Your task to perform on an android device: open a new tab in the chrome app Image 0: 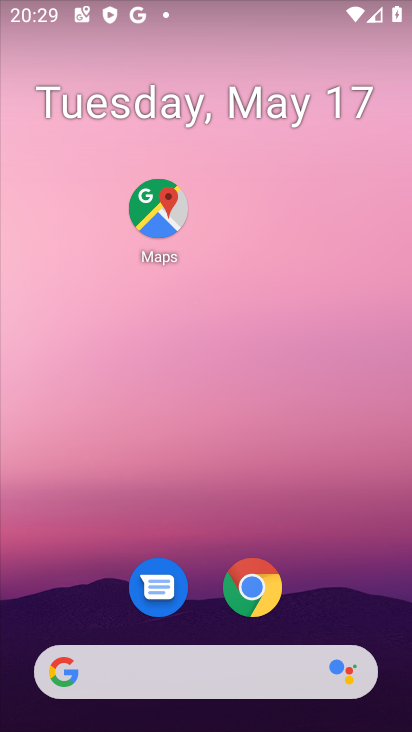
Step 0: click (253, 596)
Your task to perform on an android device: open a new tab in the chrome app Image 1: 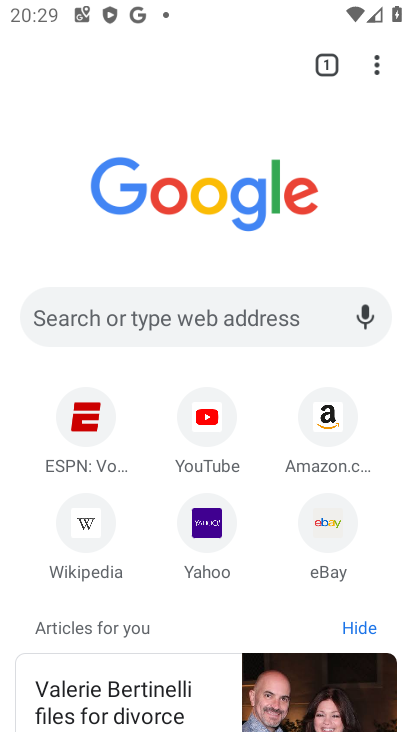
Step 1: click (333, 69)
Your task to perform on an android device: open a new tab in the chrome app Image 2: 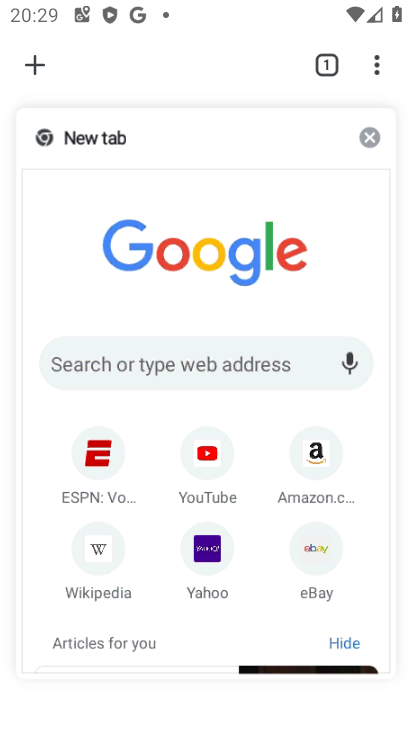
Step 2: click (39, 74)
Your task to perform on an android device: open a new tab in the chrome app Image 3: 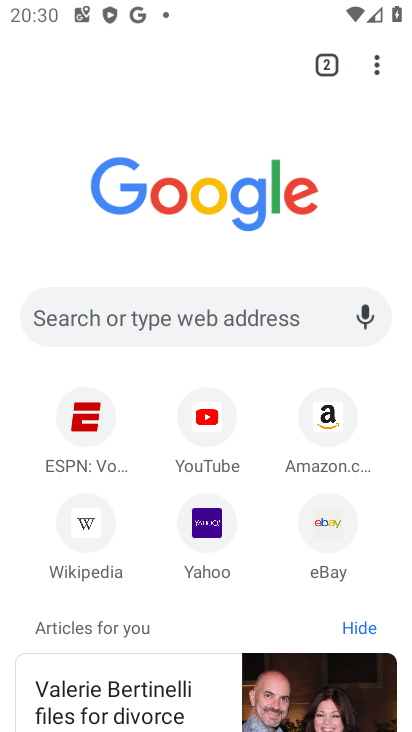
Step 3: click (207, 107)
Your task to perform on an android device: open a new tab in the chrome app Image 4: 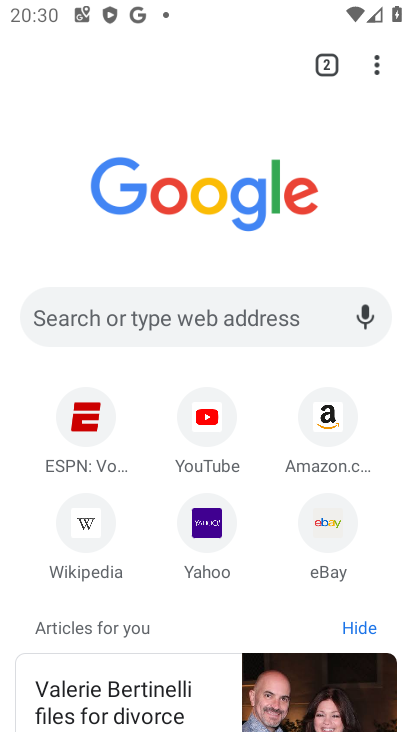
Step 4: task complete